Your task to perform on an android device: open app "Instagram" (install if not already installed) Image 0: 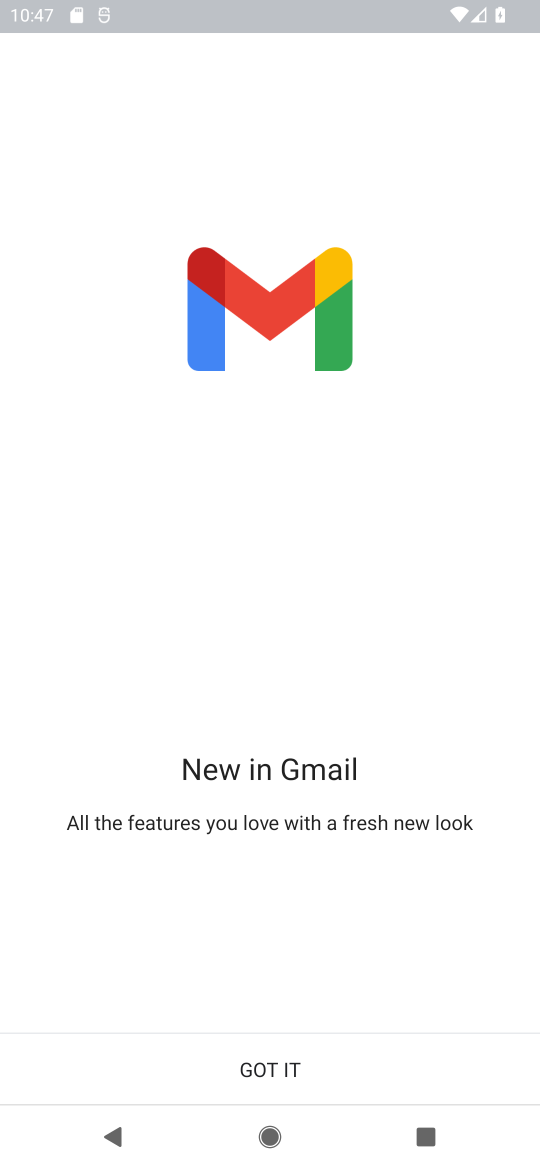
Step 0: press home button
Your task to perform on an android device: open app "Instagram" (install if not already installed) Image 1: 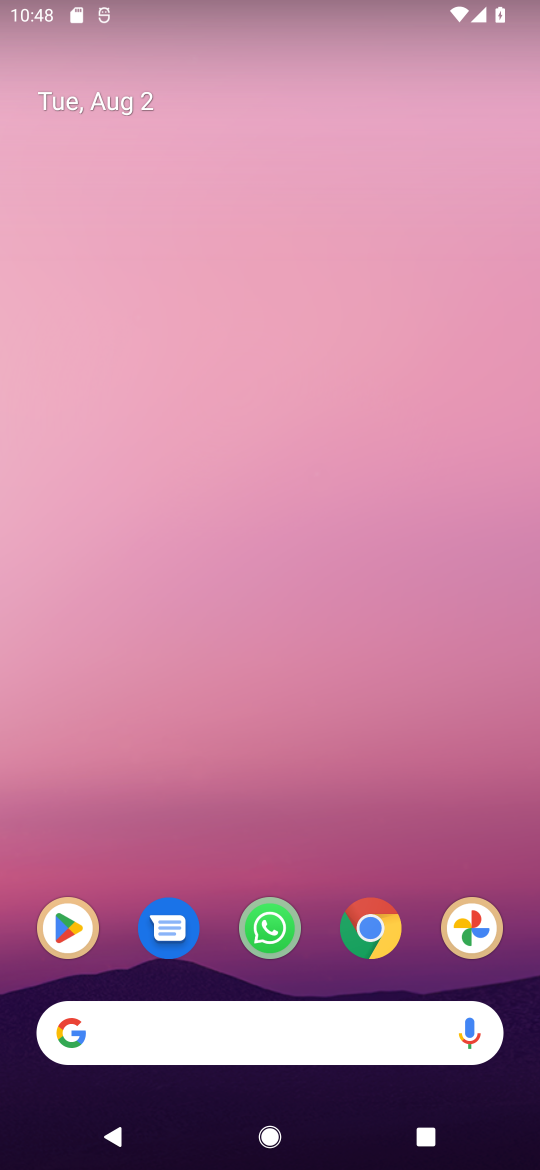
Step 1: click (58, 936)
Your task to perform on an android device: open app "Instagram" (install if not already installed) Image 2: 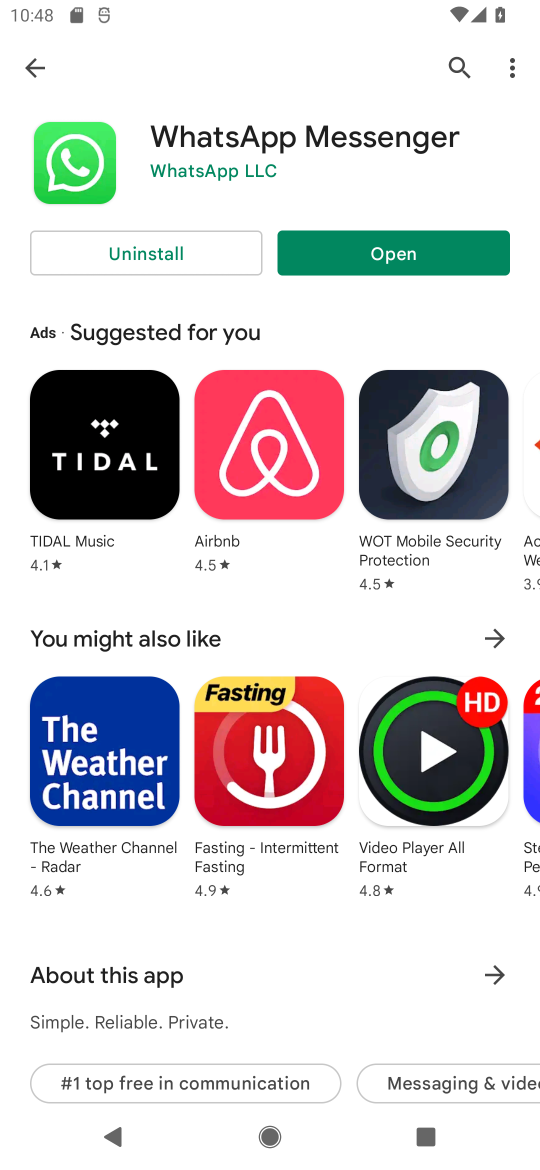
Step 2: click (466, 59)
Your task to perform on an android device: open app "Instagram" (install if not already installed) Image 3: 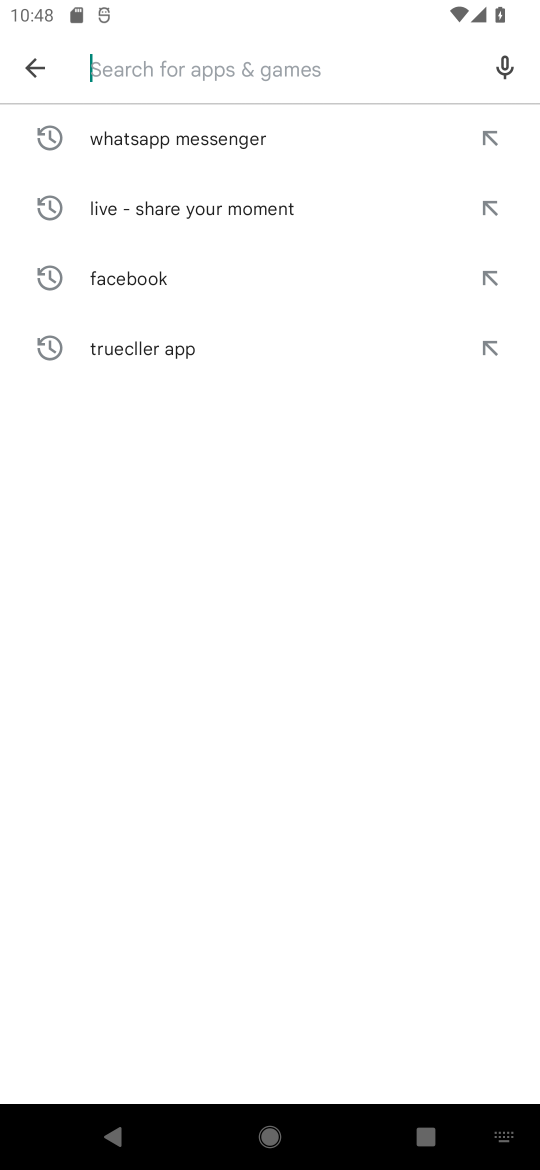
Step 3: type "instagram"
Your task to perform on an android device: open app "Instagram" (install if not already installed) Image 4: 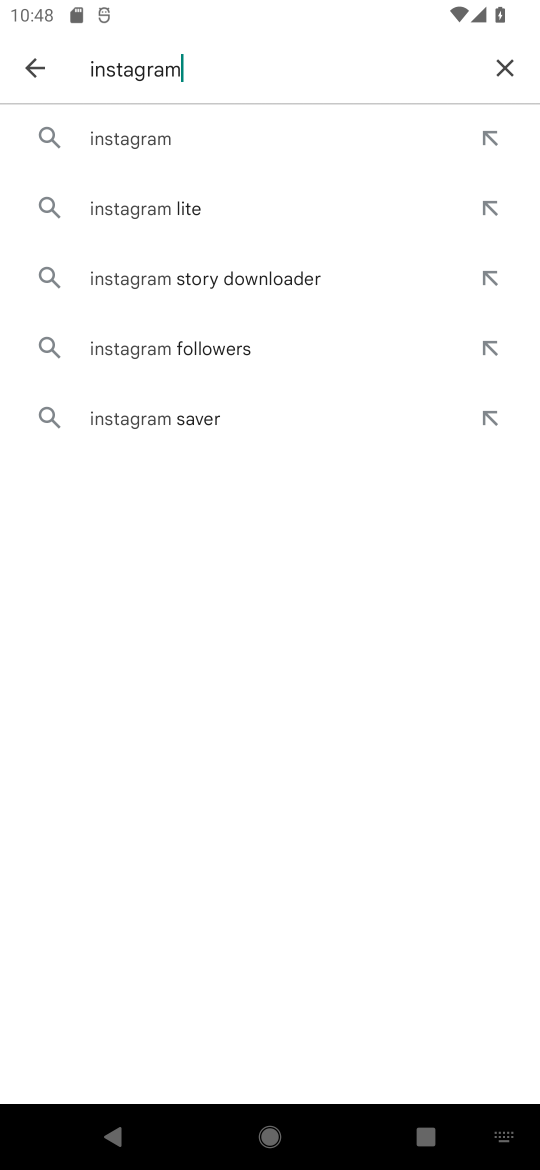
Step 4: click (338, 125)
Your task to perform on an android device: open app "Instagram" (install if not already installed) Image 5: 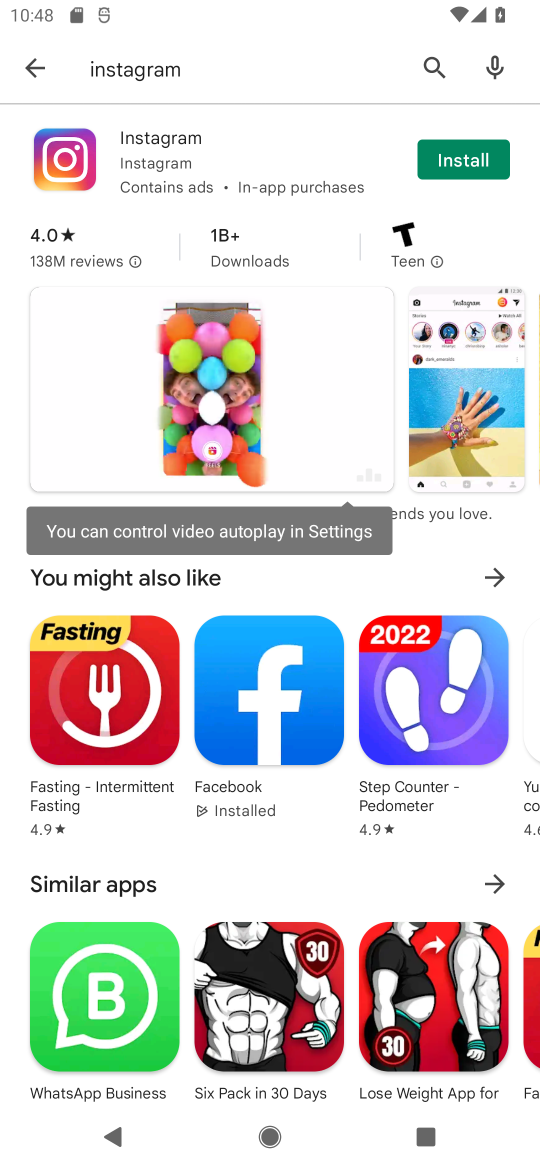
Step 5: click (153, 154)
Your task to perform on an android device: open app "Instagram" (install if not already installed) Image 6: 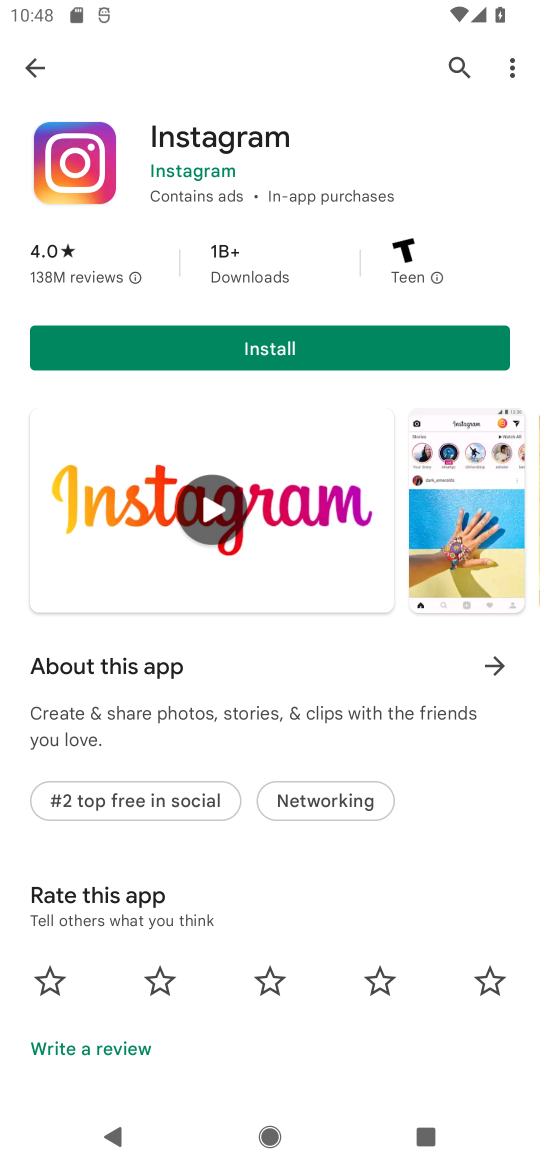
Step 6: click (147, 334)
Your task to perform on an android device: open app "Instagram" (install if not already installed) Image 7: 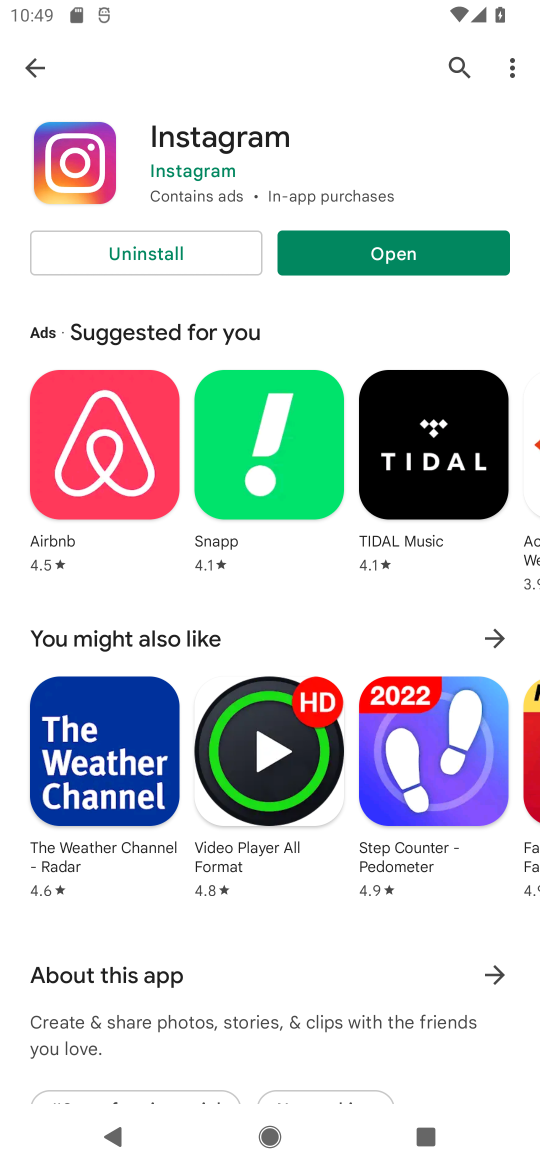
Step 7: click (357, 254)
Your task to perform on an android device: open app "Instagram" (install if not already installed) Image 8: 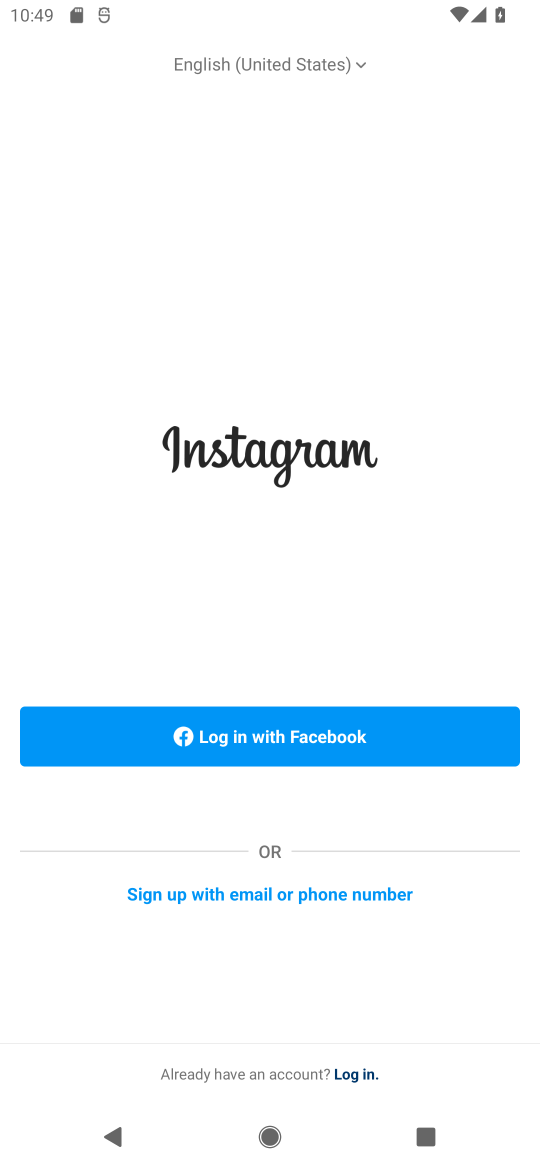
Step 8: task complete